Your task to perform on an android device: open a bookmark in the chrome app Image 0: 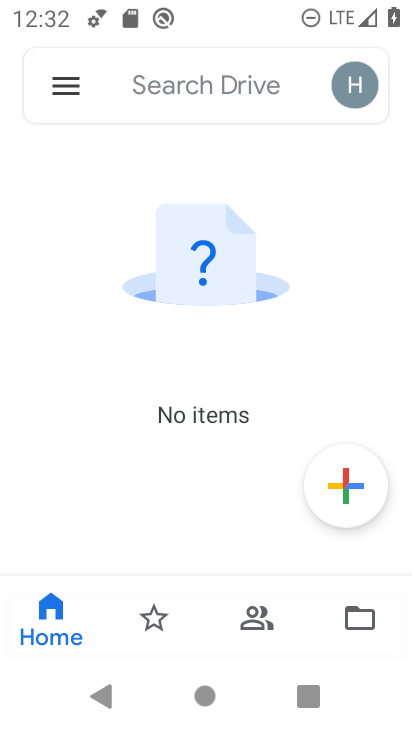
Step 0: press home button
Your task to perform on an android device: open a bookmark in the chrome app Image 1: 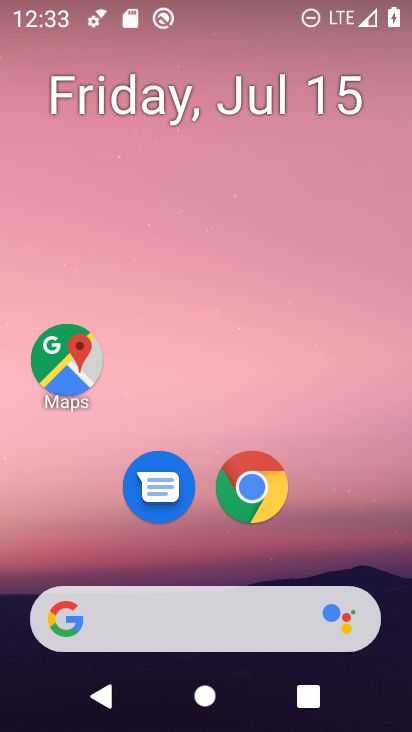
Step 1: click (246, 498)
Your task to perform on an android device: open a bookmark in the chrome app Image 2: 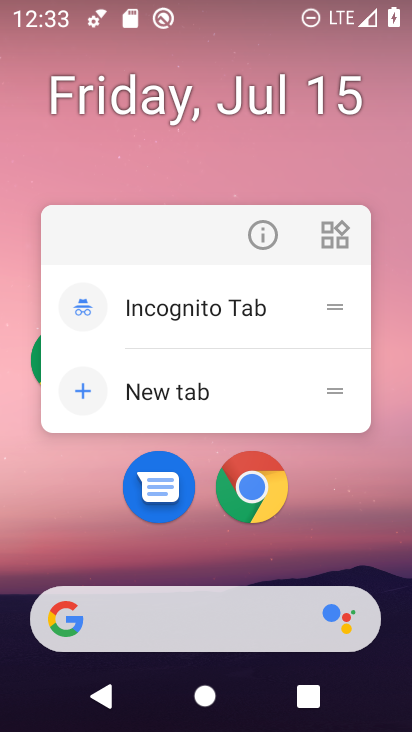
Step 2: click (270, 489)
Your task to perform on an android device: open a bookmark in the chrome app Image 3: 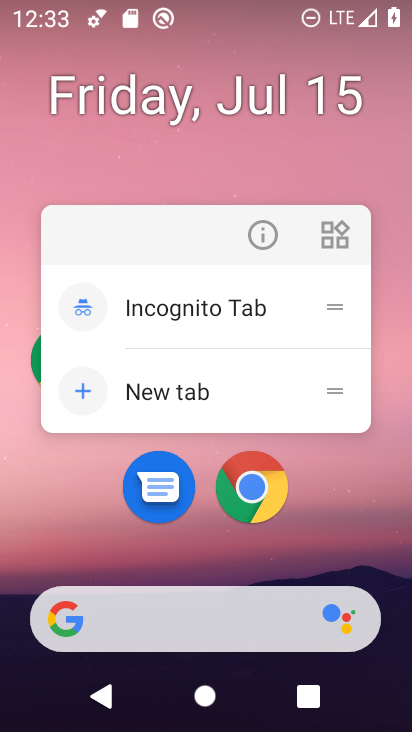
Step 3: click (279, 492)
Your task to perform on an android device: open a bookmark in the chrome app Image 4: 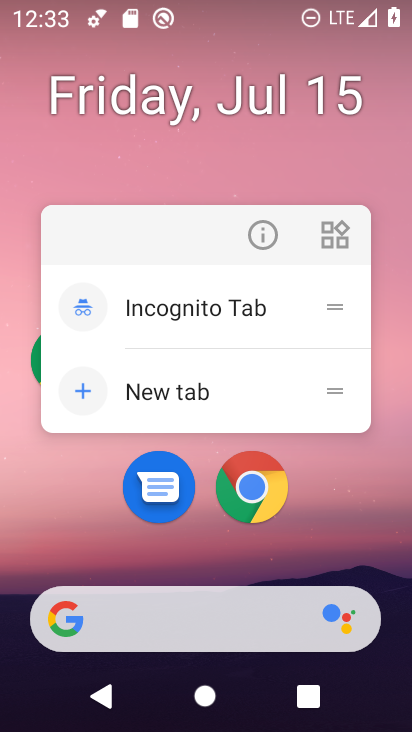
Step 4: click (228, 492)
Your task to perform on an android device: open a bookmark in the chrome app Image 5: 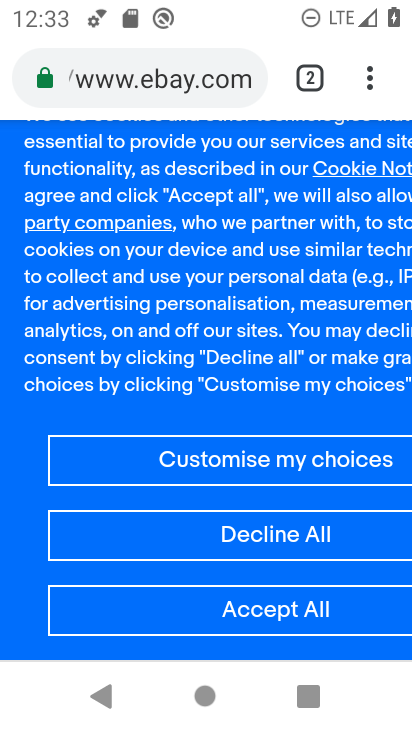
Step 5: click (371, 67)
Your task to perform on an android device: open a bookmark in the chrome app Image 6: 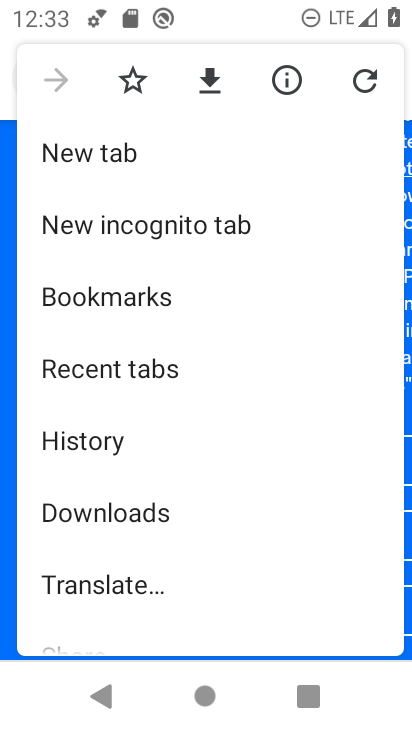
Step 6: drag from (153, 497) to (193, 290)
Your task to perform on an android device: open a bookmark in the chrome app Image 7: 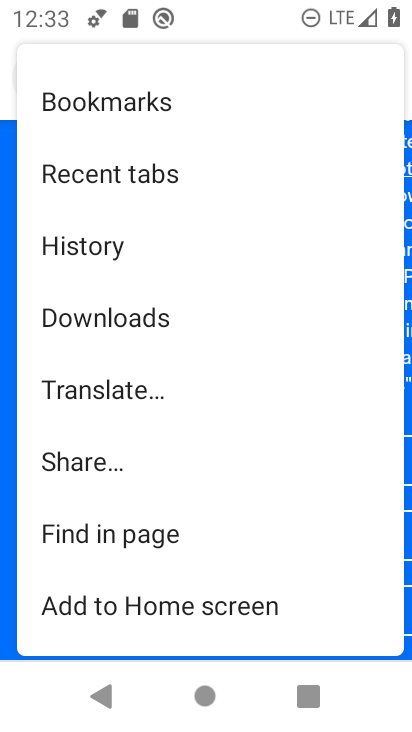
Step 7: click (125, 116)
Your task to perform on an android device: open a bookmark in the chrome app Image 8: 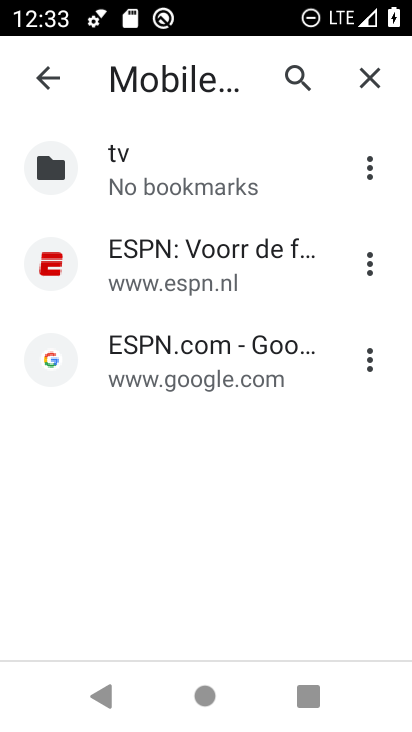
Step 8: click (195, 280)
Your task to perform on an android device: open a bookmark in the chrome app Image 9: 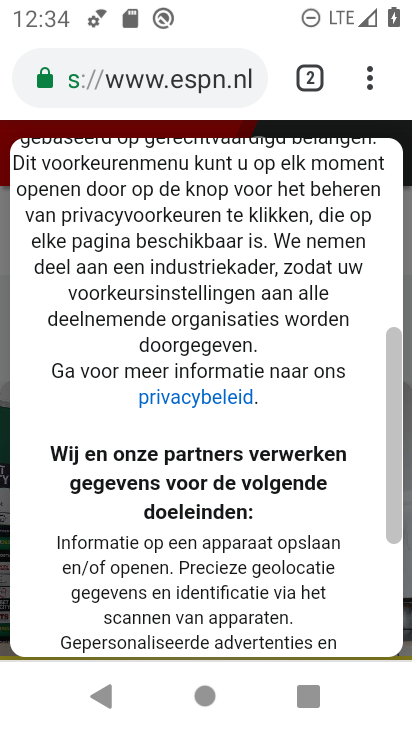
Step 9: click (365, 77)
Your task to perform on an android device: open a bookmark in the chrome app Image 10: 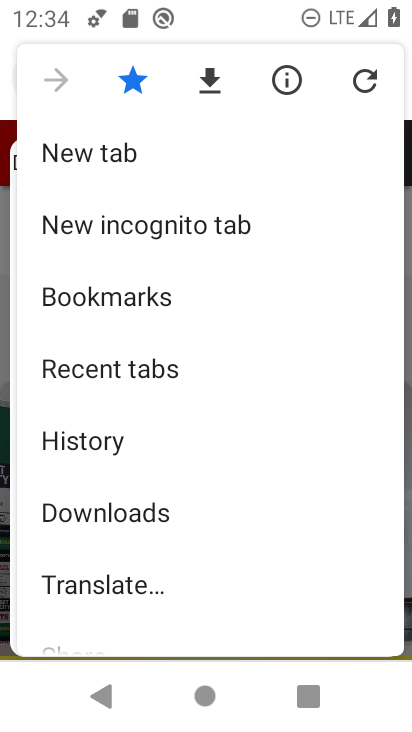
Step 10: task complete